Your task to perform on an android device: remove spam from my inbox in the gmail app Image 0: 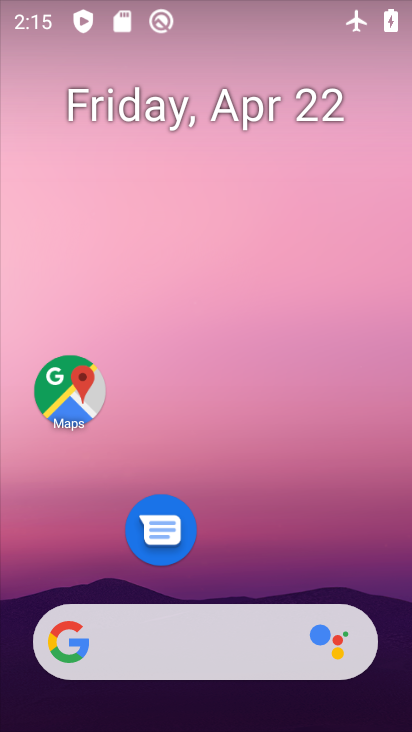
Step 0: drag from (261, 552) to (226, 111)
Your task to perform on an android device: remove spam from my inbox in the gmail app Image 1: 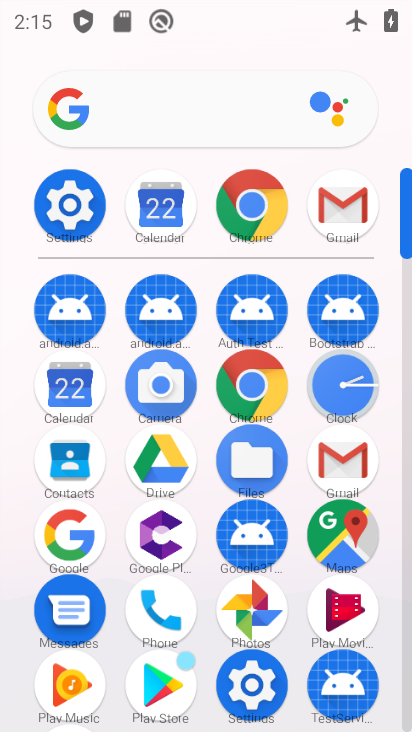
Step 1: click (328, 218)
Your task to perform on an android device: remove spam from my inbox in the gmail app Image 2: 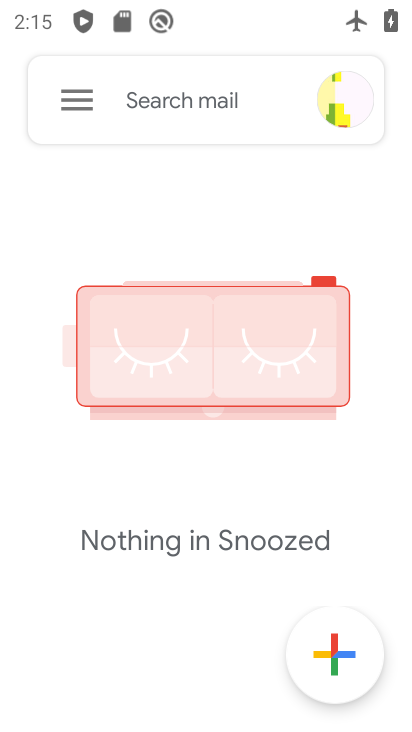
Step 2: click (68, 102)
Your task to perform on an android device: remove spam from my inbox in the gmail app Image 3: 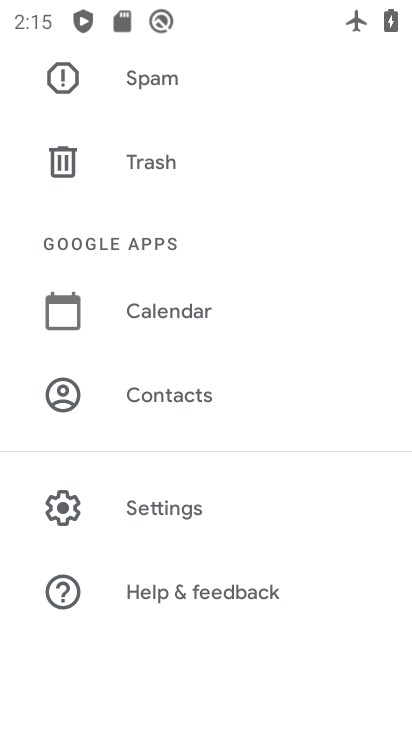
Step 3: click (140, 78)
Your task to perform on an android device: remove spam from my inbox in the gmail app Image 4: 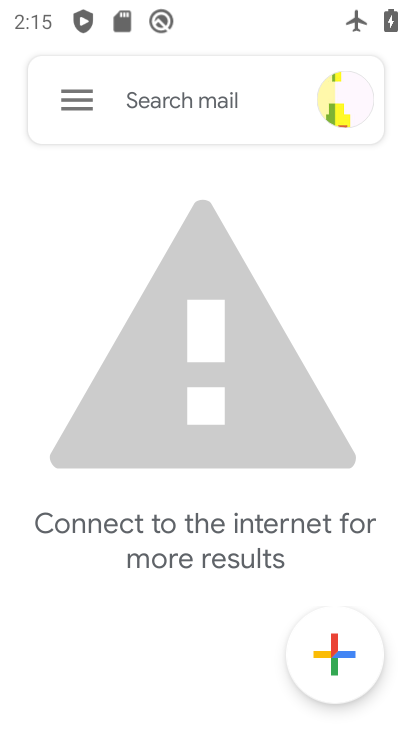
Step 4: task complete